Your task to perform on an android device: Open wifi settings Image 0: 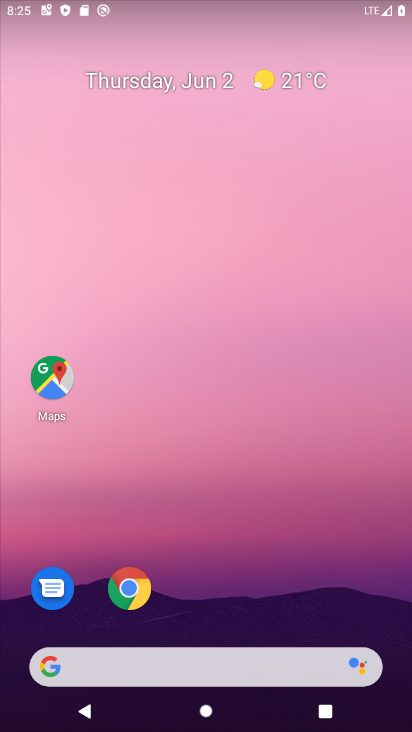
Step 0: drag from (251, 499) to (302, 176)
Your task to perform on an android device: Open wifi settings Image 1: 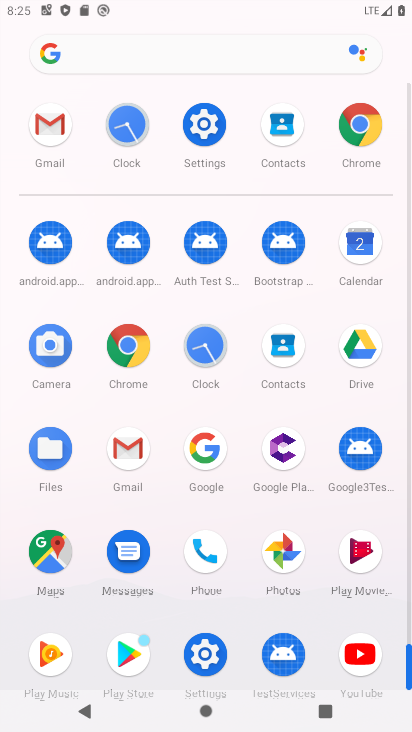
Step 1: click (224, 129)
Your task to perform on an android device: Open wifi settings Image 2: 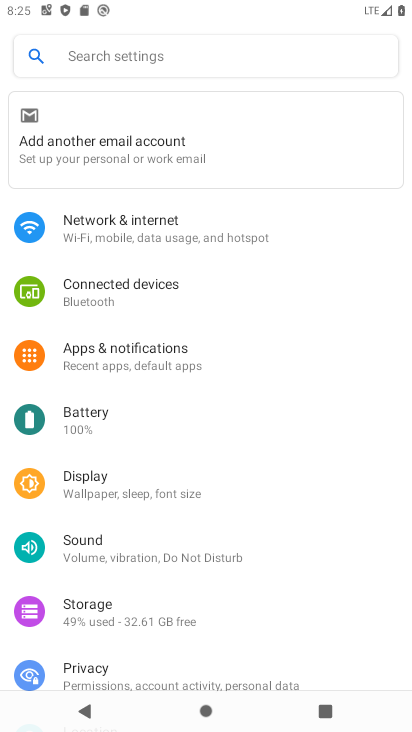
Step 2: click (198, 233)
Your task to perform on an android device: Open wifi settings Image 3: 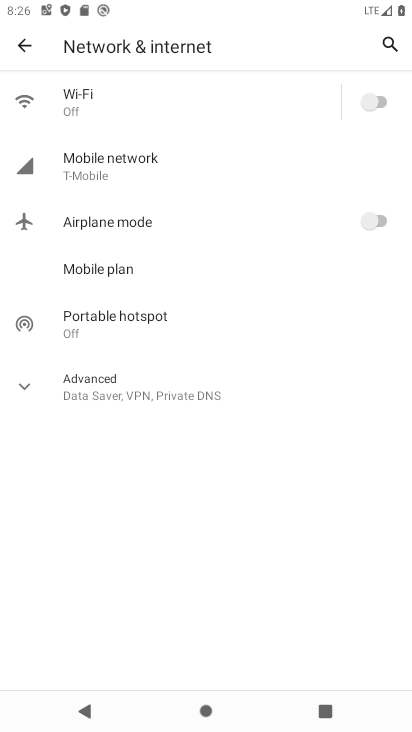
Step 3: click (172, 106)
Your task to perform on an android device: Open wifi settings Image 4: 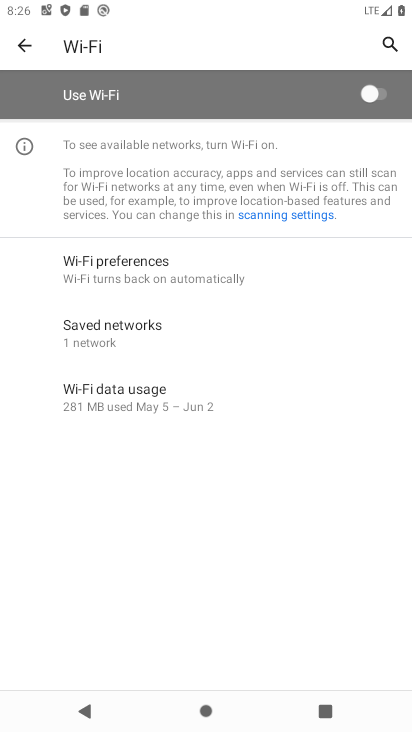
Step 4: task complete